Your task to perform on an android device: Find coffee shops on Maps Image 0: 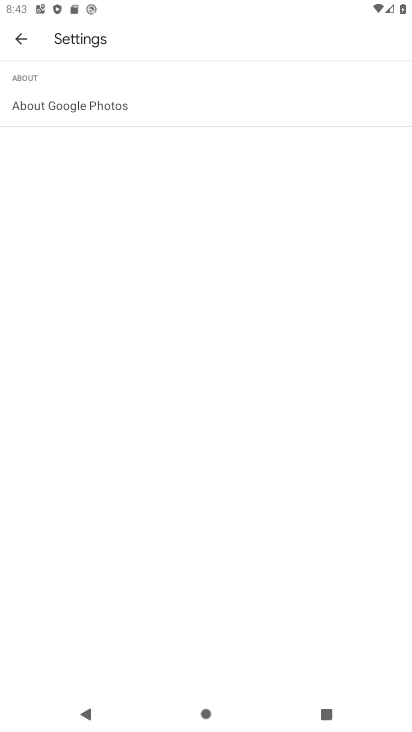
Step 0: press home button
Your task to perform on an android device: Find coffee shops on Maps Image 1: 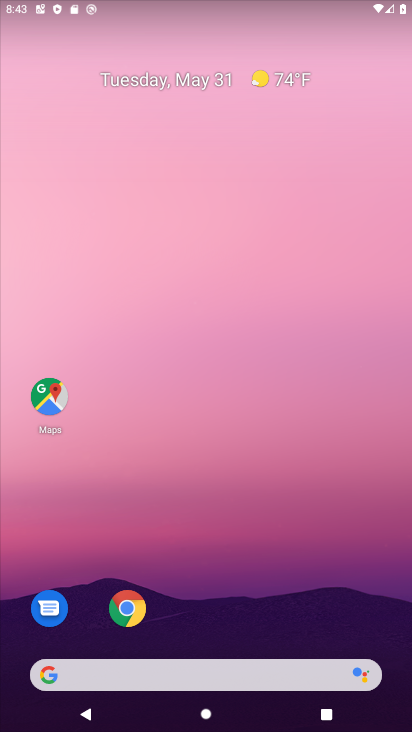
Step 1: click (60, 384)
Your task to perform on an android device: Find coffee shops on Maps Image 2: 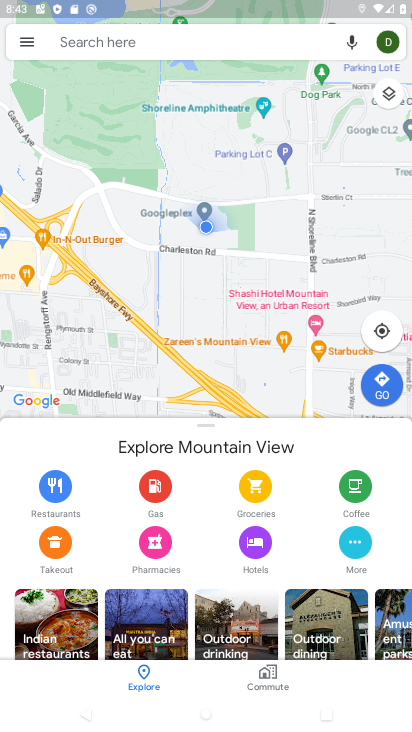
Step 2: click (142, 35)
Your task to perform on an android device: Find coffee shops on Maps Image 3: 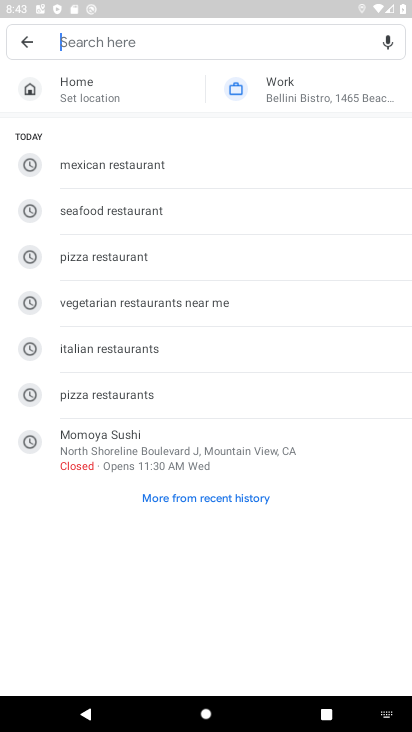
Step 3: type "coffee shop"
Your task to perform on an android device: Find coffee shops on Maps Image 4: 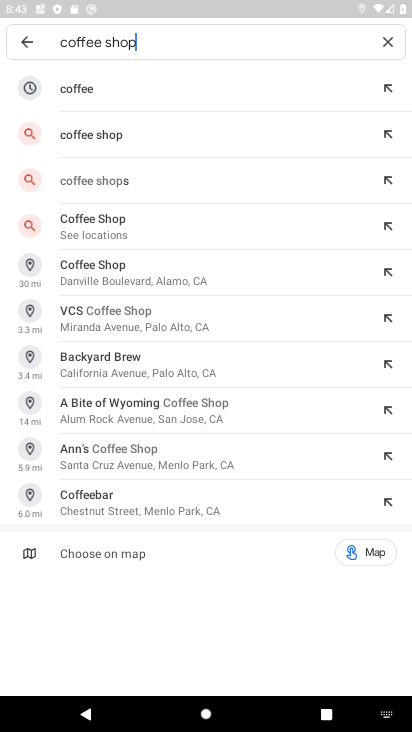
Step 4: click (120, 130)
Your task to perform on an android device: Find coffee shops on Maps Image 5: 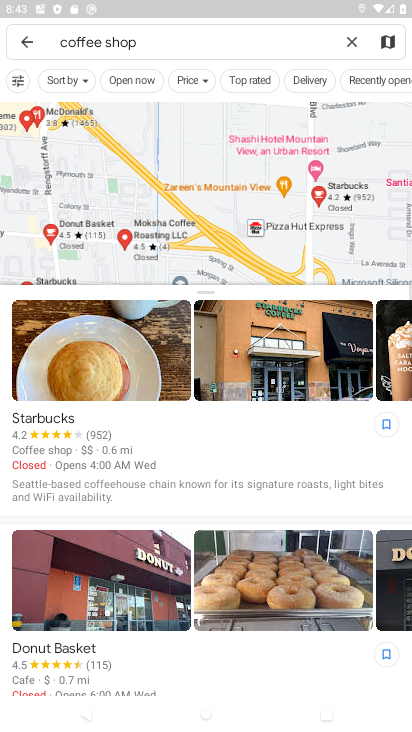
Step 5: task complete